Your task to perform on an android device: Show me recent news Image 0: 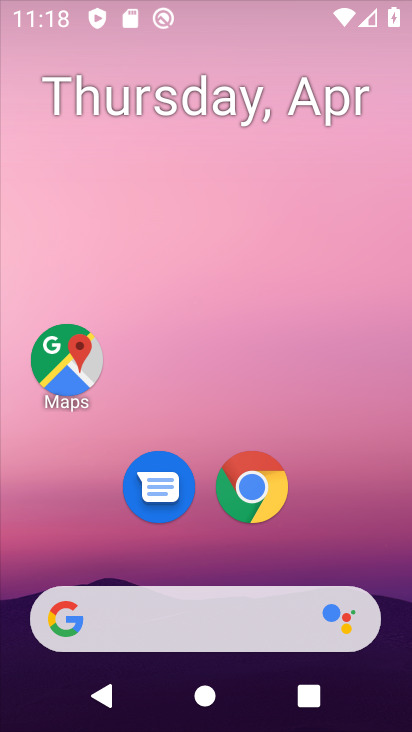
Step 0: drag from (323, 279) to (315, 212)
Your task to perform on an android device: Show me recent news Image 1: 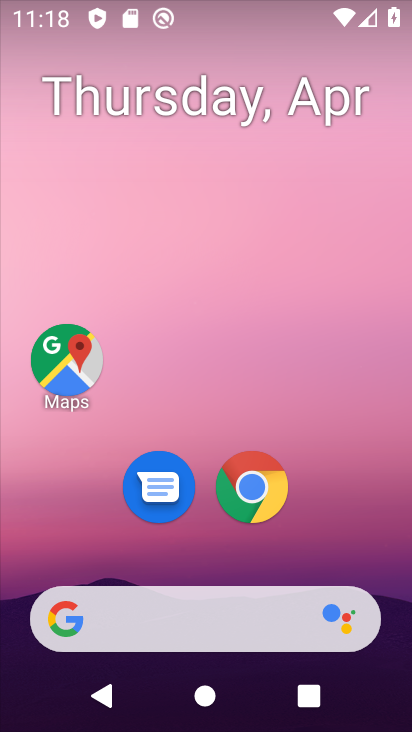
Step 1: drag from (347, 569) to (372, 185)
Your task to perform on an android device: Show me recent news Image 2: 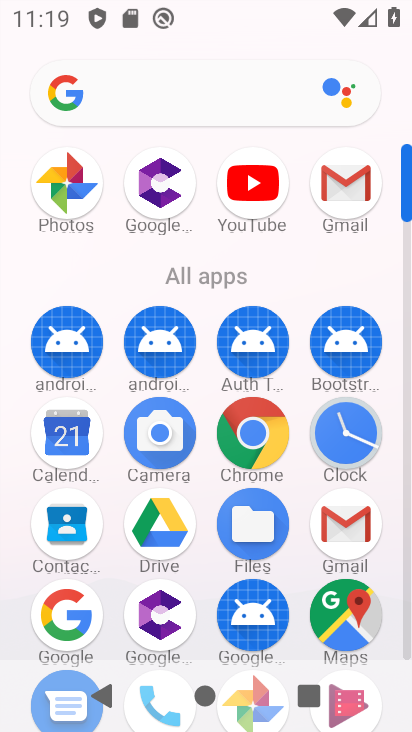
Step 2: click (263, 436)
Your task to perform on an android device: Show me recent news Image 3: 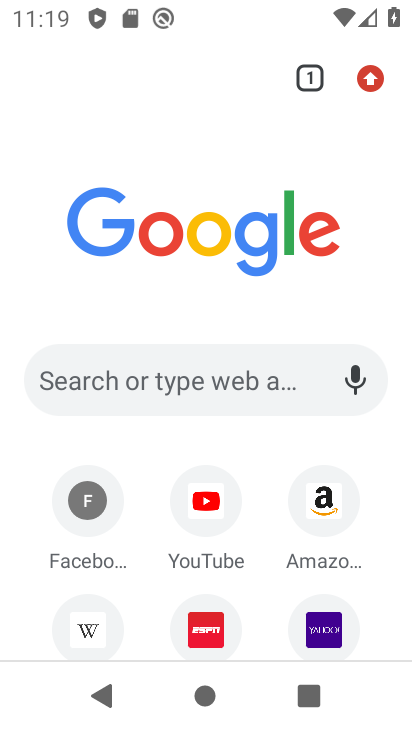
Step 3: click (121, 360)
Your task to perform on an android device: Show me recent news Image 4: 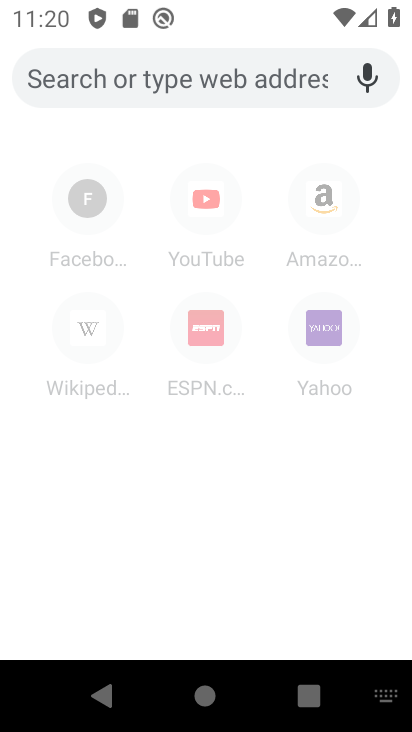
Step 4: type "recent news"
Your task to perform on an android device: Show me recent news Image 5: 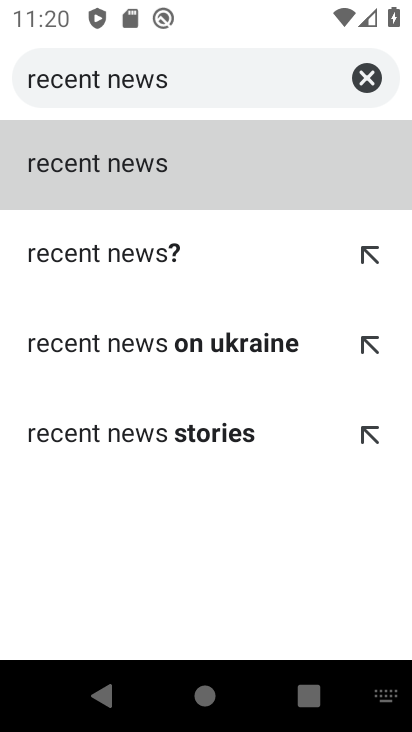
Step 5: click (286, 162)
Your task to perform on an android device: Show me recent news Image 6: 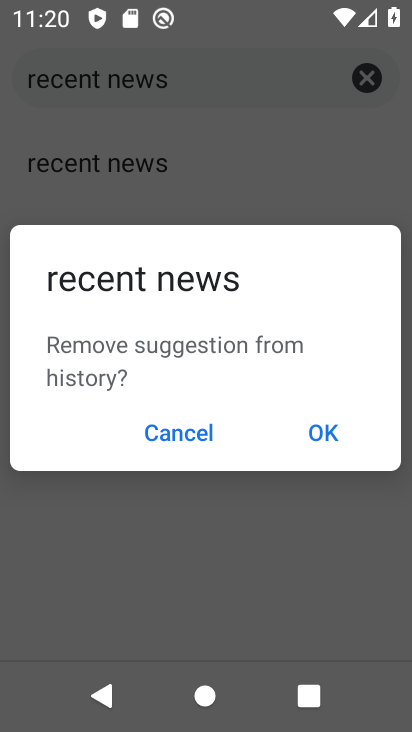
Step 6: click (323, 434)
Your task to perform on an android device: Show me recent news Image 7: 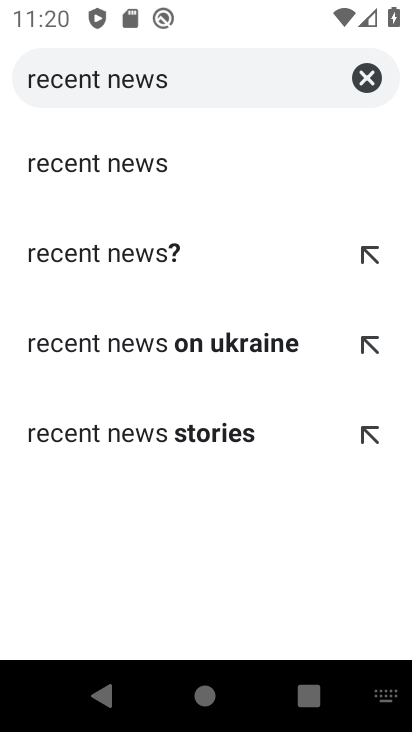
Step 7: click (135, 243)
Your task to perform on an android device: Show me recent news Image 8: 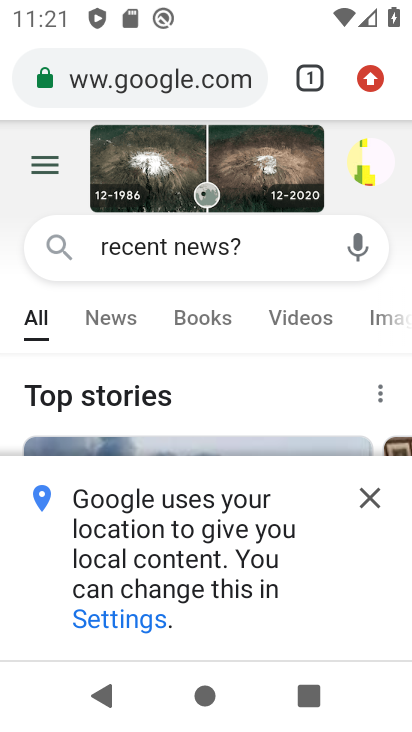
Step 8: click (366, 506)
Your task to perform on an android device: Show me recent news Image 9: 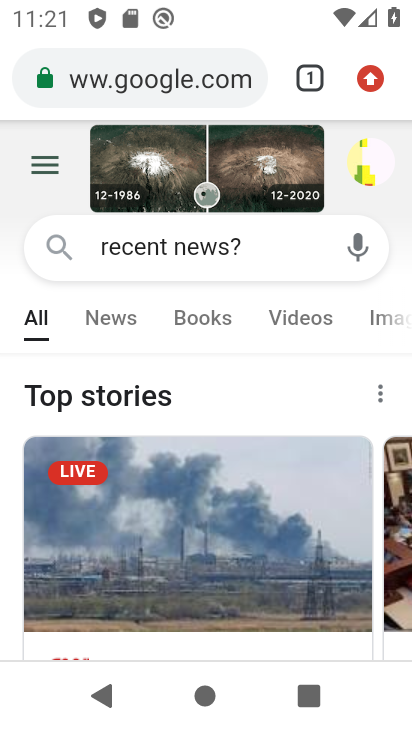
Step 9: task complete